Your task to perform on an android device: read, delete, or share a saved page in the chrome app Image 0: 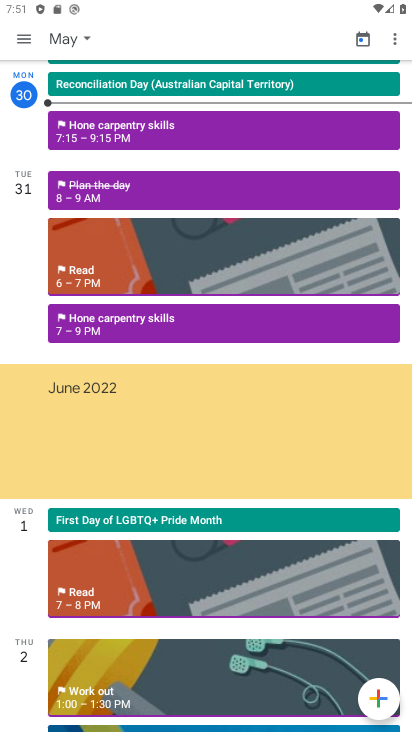
Step 0: press home button
Your task to perform on an android device: read, delete, or share a saved page in the chrome app Image 1: 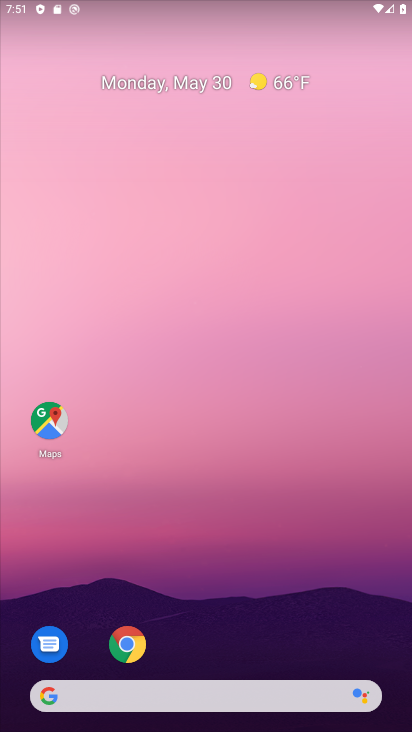
Step 1: click (133, 641)
Your task to perform on an android device: read, delete, or share a saved page in the chrome app Image 2: 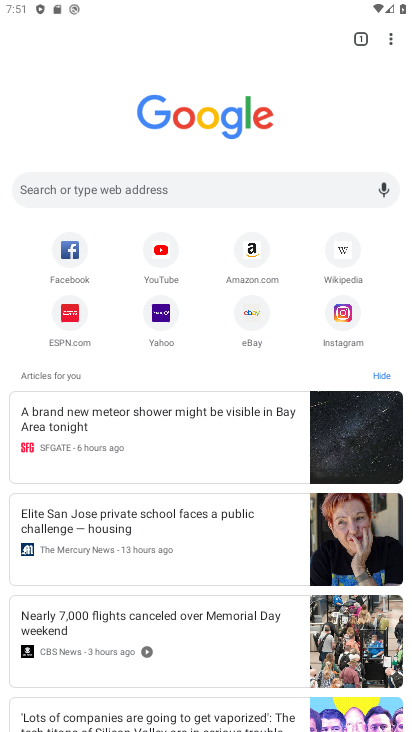
Step 2: click (386, 42)
Your task to perform on an android device: read, delete, or share a saved page in the chrome app Image 3: 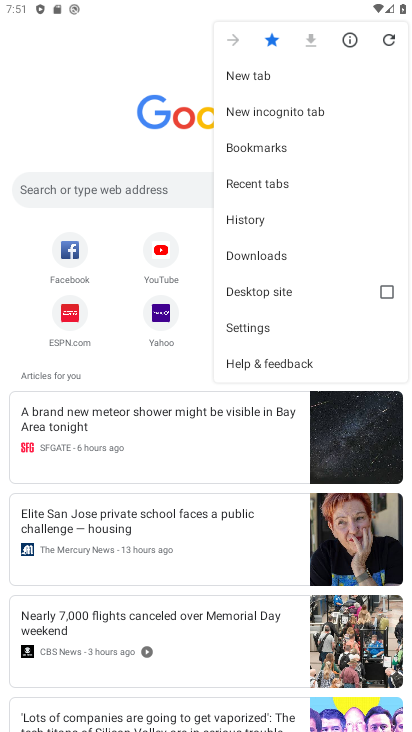
Step 3: click (275, 257)
Your task to perform on an android device: read, delete, or share a saved page in the chrome app Image 4: 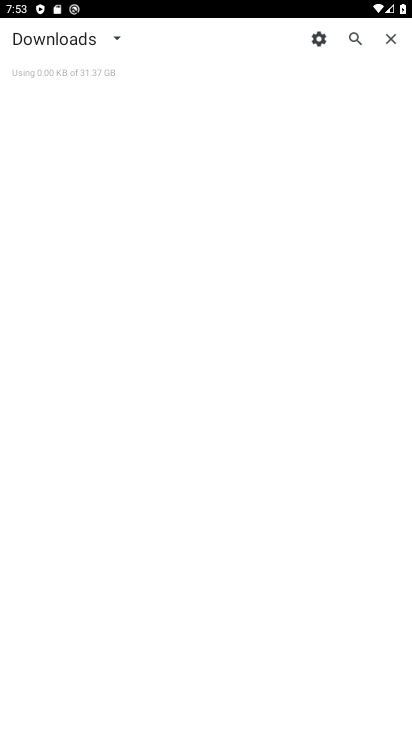
Step 4: task complete